Your task to perform on an android device: Search for "acer predator" on ebay.com, select the first entry, add it to the cart, then select checkout. Image 0: 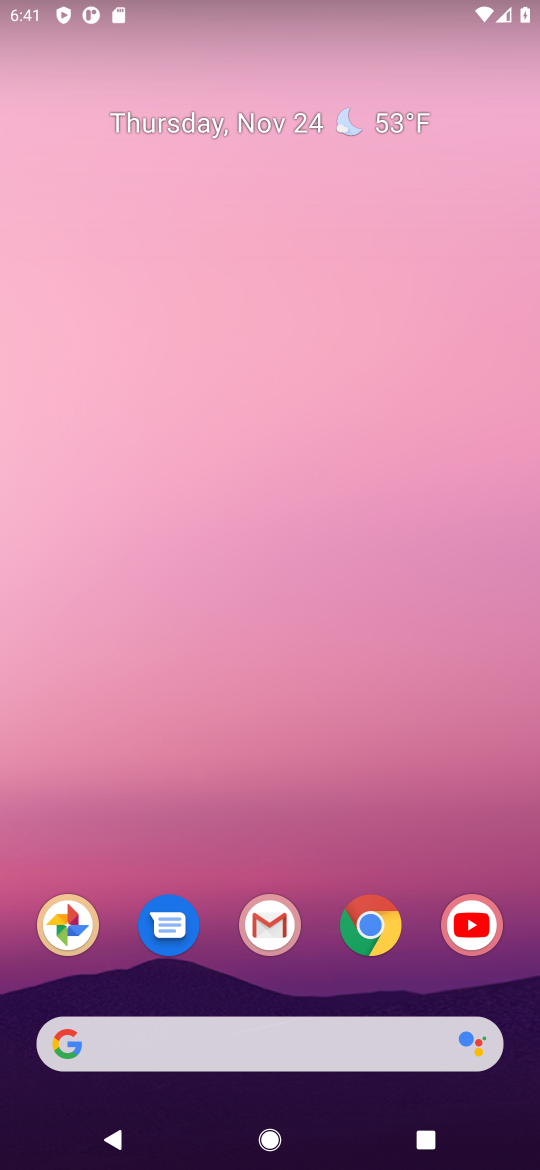
Step 0: drag from (207, 964) to (286, 471)
Your task to perform on an android device: Search for "acer predator" on ebay.com, select the first entry, add it to the cart, then select checkout. Image 1: 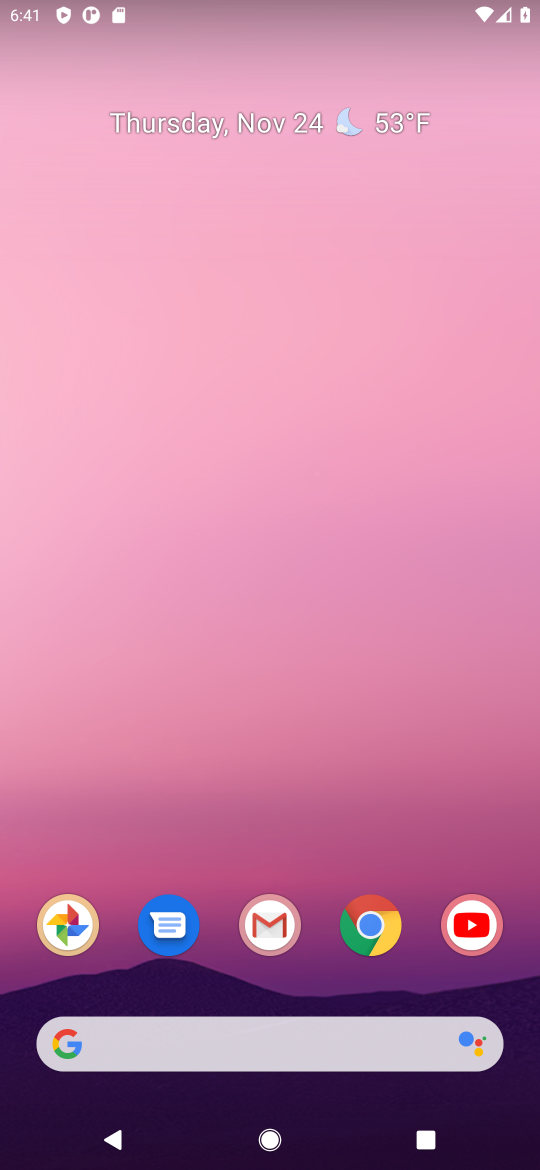
Step 1: drag from (248, 972) to (252, 488)
Your task to perform on an android device: Search for "acer predator" on ebay.com, select the first entry, add it to the cart, then select checkout. Image 2: 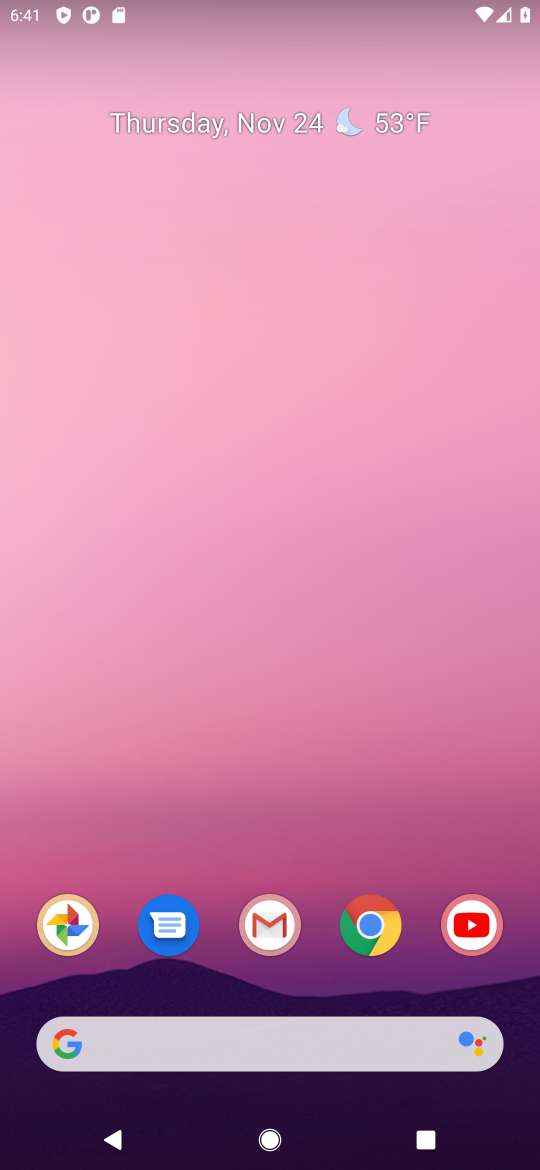
Step 2: drag from (275, 1006) to (274, 347)
Your task to perform on an android device: Search for "acer predator" on ebay.com, select the first entry, add it to the cart, then select checkout. Image 3: 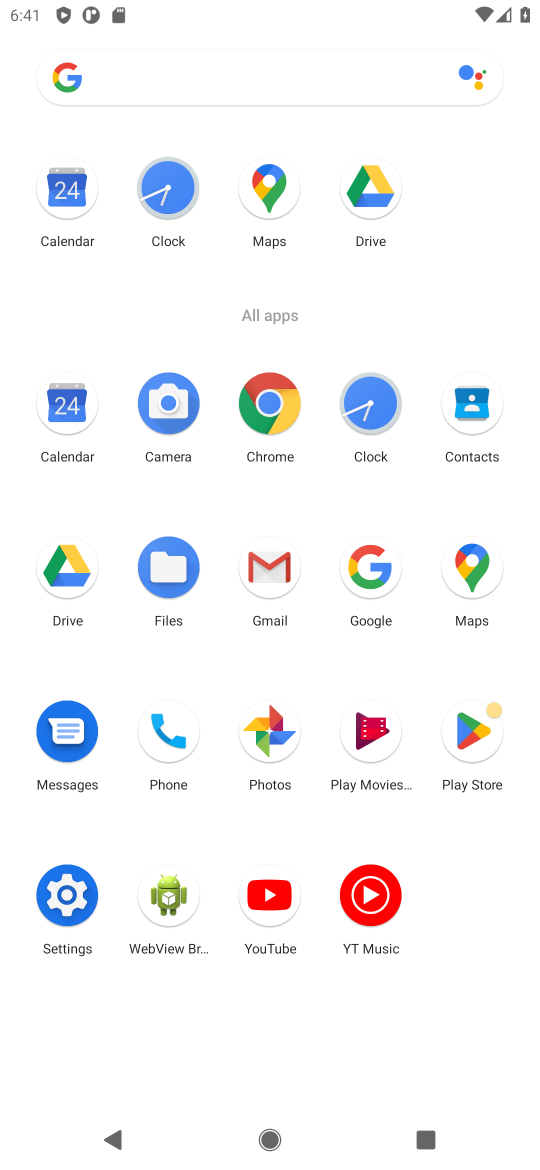
Step 3: click (356, 577)
Your task to perform on an android device: Search for "acer predator" on ebay.com, select the first entry, add it to the cart, then select checkout. Image 4: 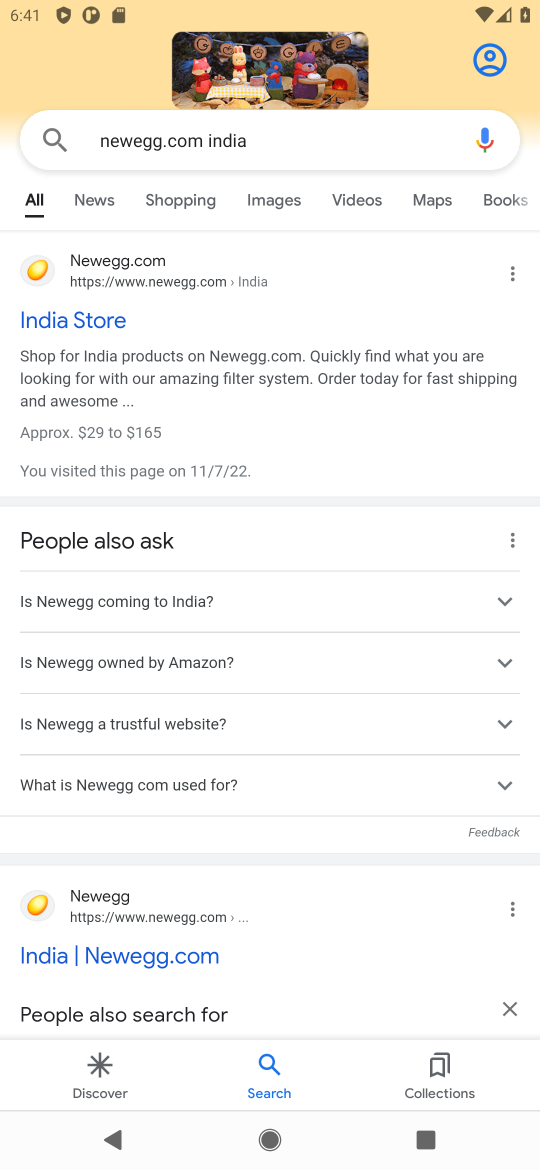
Step 4: click (120, 140)
Your task to perform on an android device: Search for "acer predator" on ebay.com, select the first entry, add it to the cart, then select checkout. Image 5: 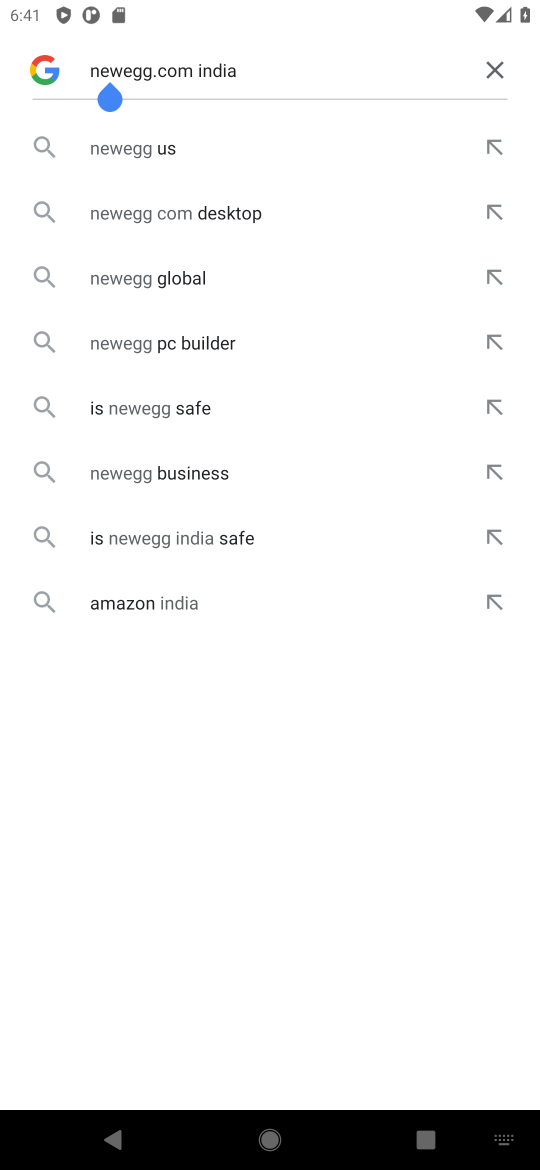
Step 5: click (505, 62)
Your task to perform on an android device: Search for "acer predator" on ebay.com, select the first entry, add it to the cart, then select checkout. Image 6: 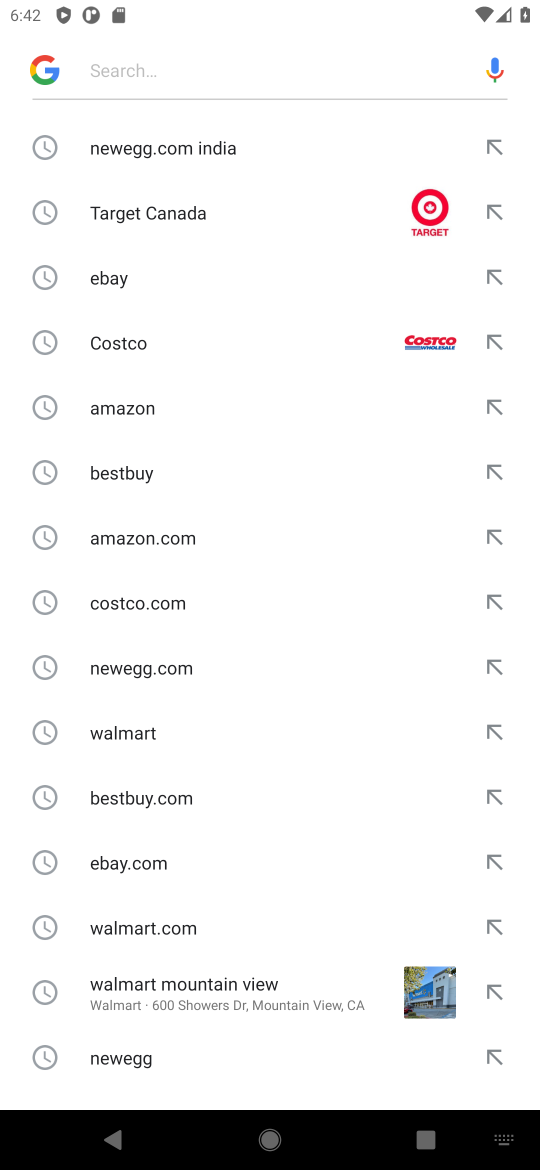
Step 6: click (149, 287)
Your task to perform on an android device: Search for "acer predator" on ebay.com, select the first entry, add it to the cart, then select checkout. Image 7: 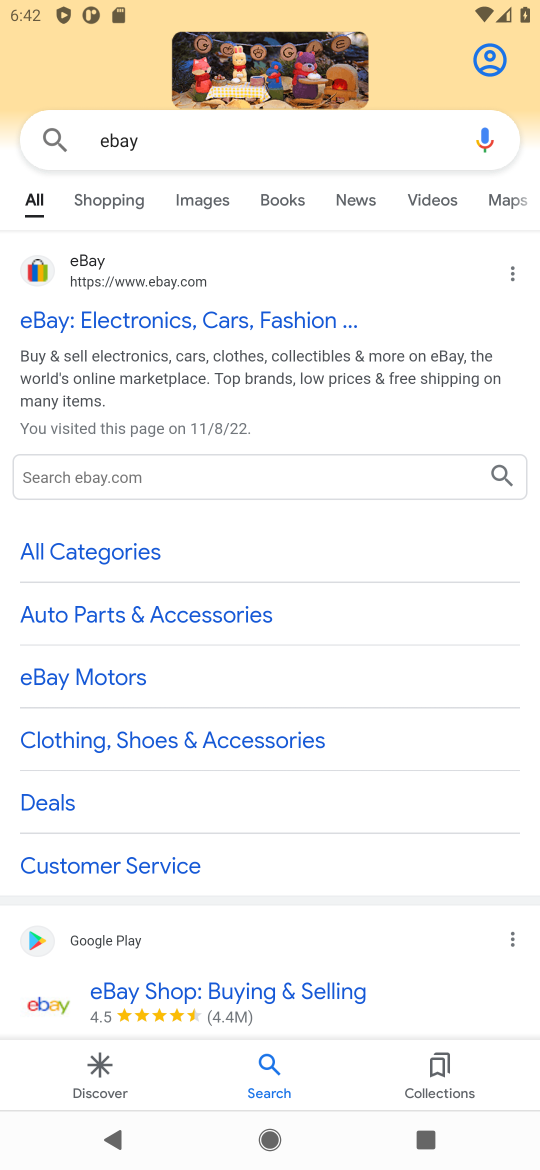
Step 7: click (141, 147)
Your task to perform on an android device: Search for "acer predator" on ebay.com, select the first entry, add it to the cart, then select checkout. Image 8: 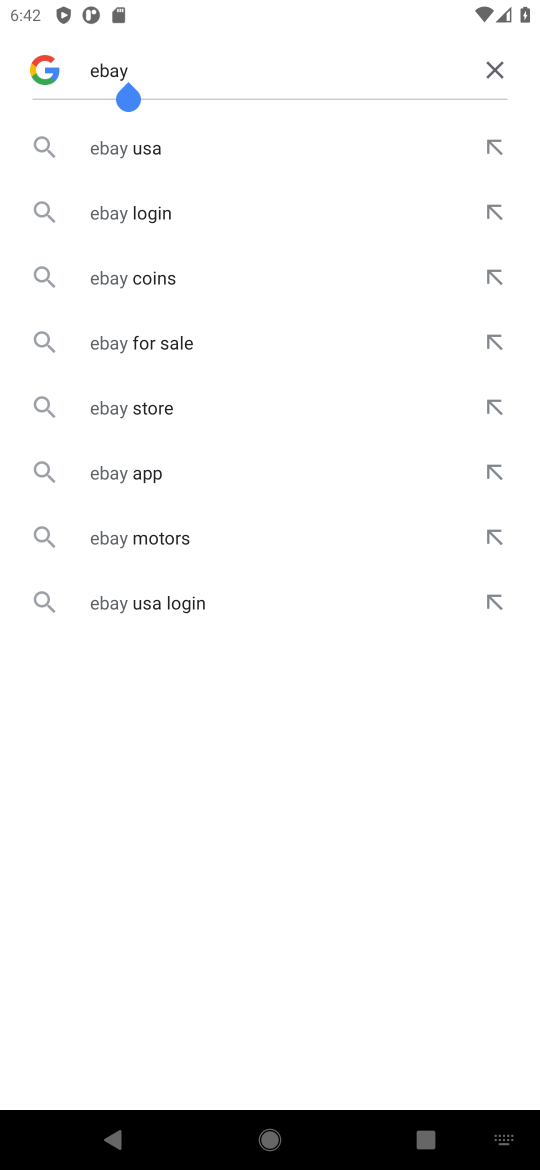
Step 8: click (500, 69)
Your task to perform on an android device: Search for "acer predator" on ebay.com, select the first entry, add it to the cart, then select checkout. Image 9: 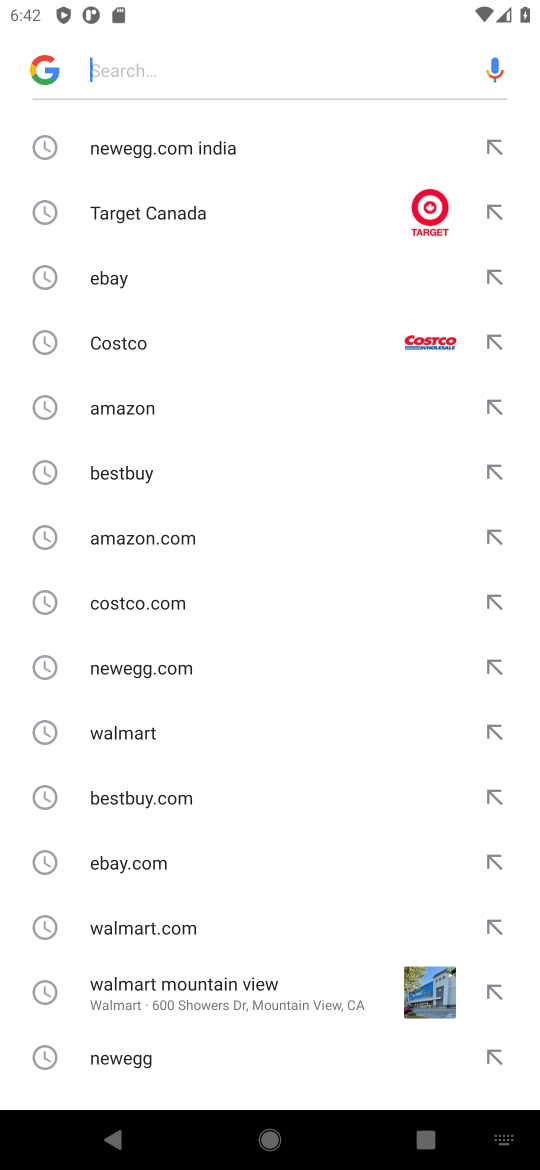
Step 9: click (109, 280)
Your task to perform on an android device: Search for "acer predator" on ebay.com, select the first entry, add it to the cart, then select checkout. Image 10: 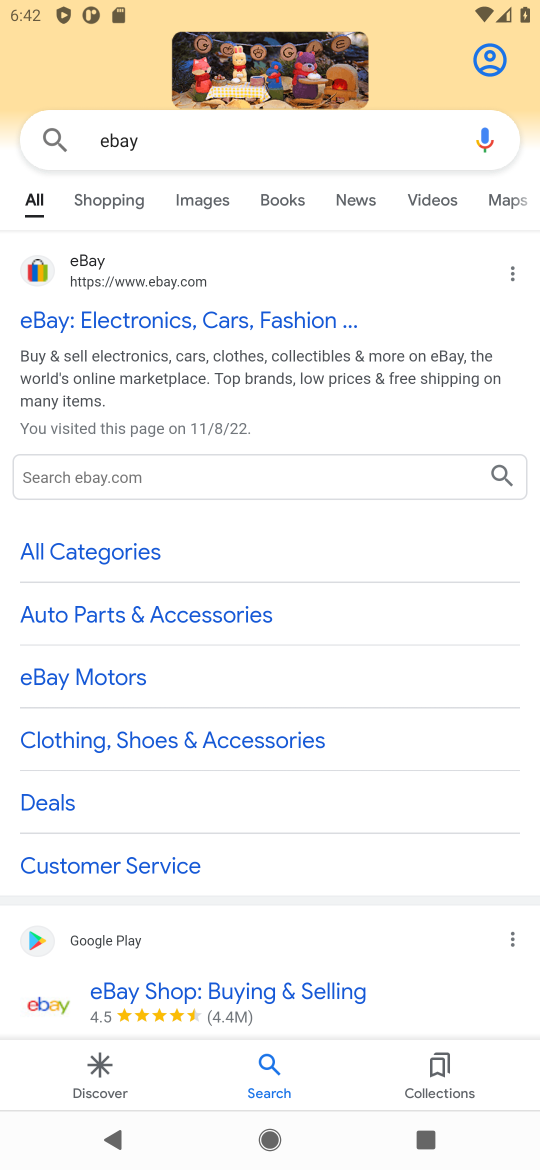
Step 10: click (103, 311)
Your task to perform on an android device: Search for "acer predator" on ebay.com, select the first entry, add it to the cart, then select checkout. Image 11: 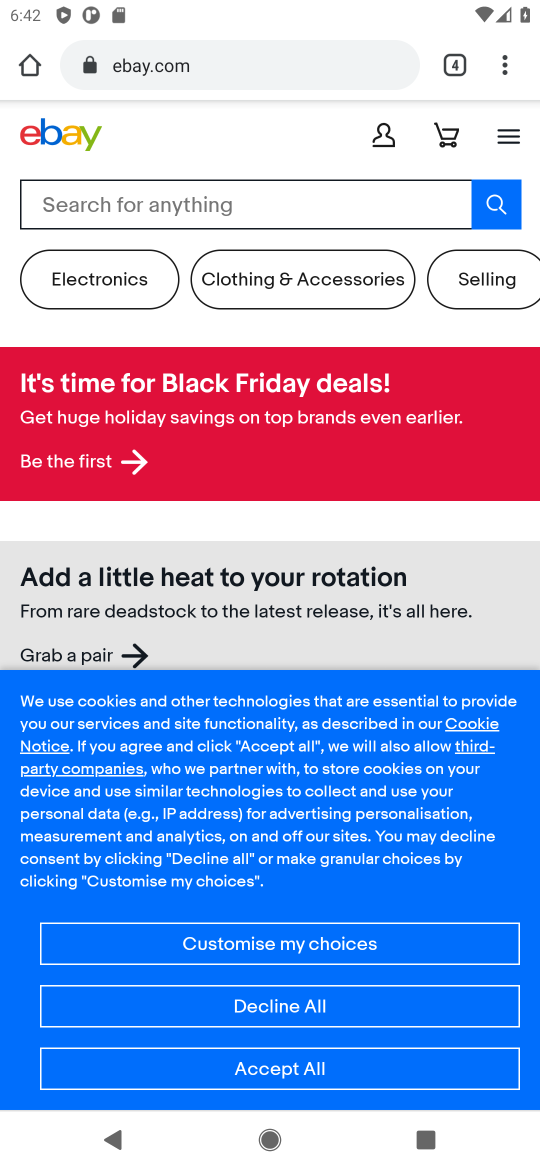
Step 11: click (375, 208)
Your task to perform on an android device: Search for "acer predator" on ebay.com, select the first entry, add it to the cart, then select checkout. Image 12: 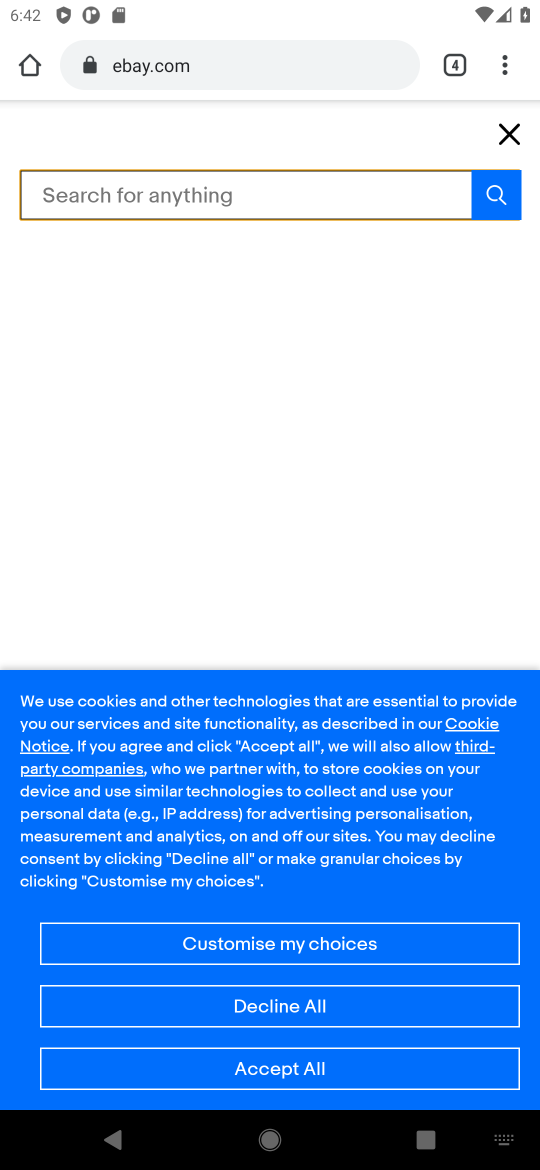
Step 12: type "cer predator"
Your task to perform on an android device: Search for "acer predator" on ebay.com, select the first entry, add it to the cart, then select checkout. Image 13: 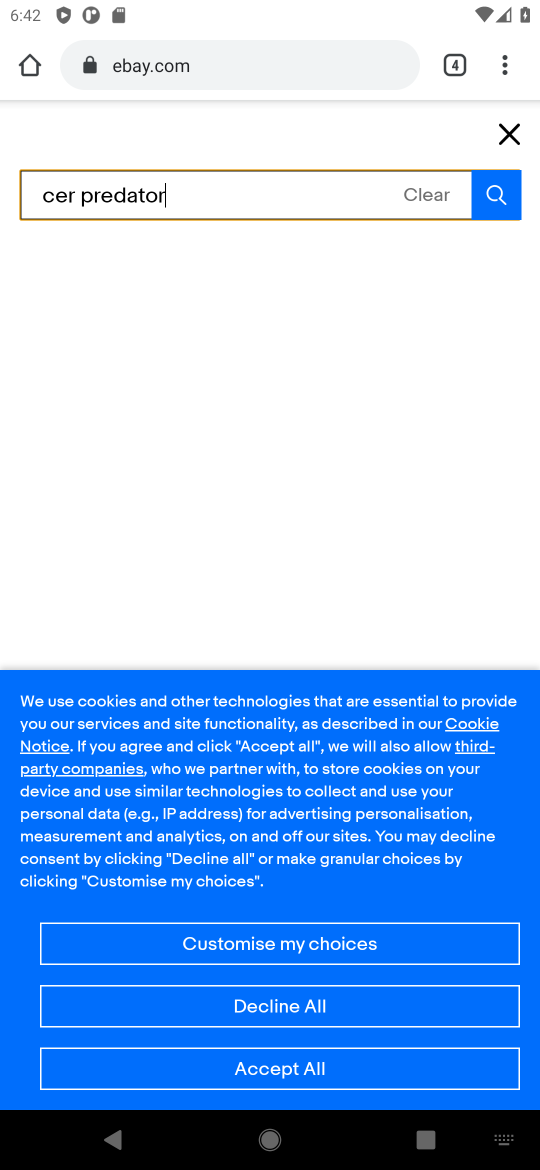
Step 13: click (491, 183)
Your task to perform on an android device: Search for "acer predator" on ebay.com, select the first entry, add it to the cart, then select checkout. Image 14: 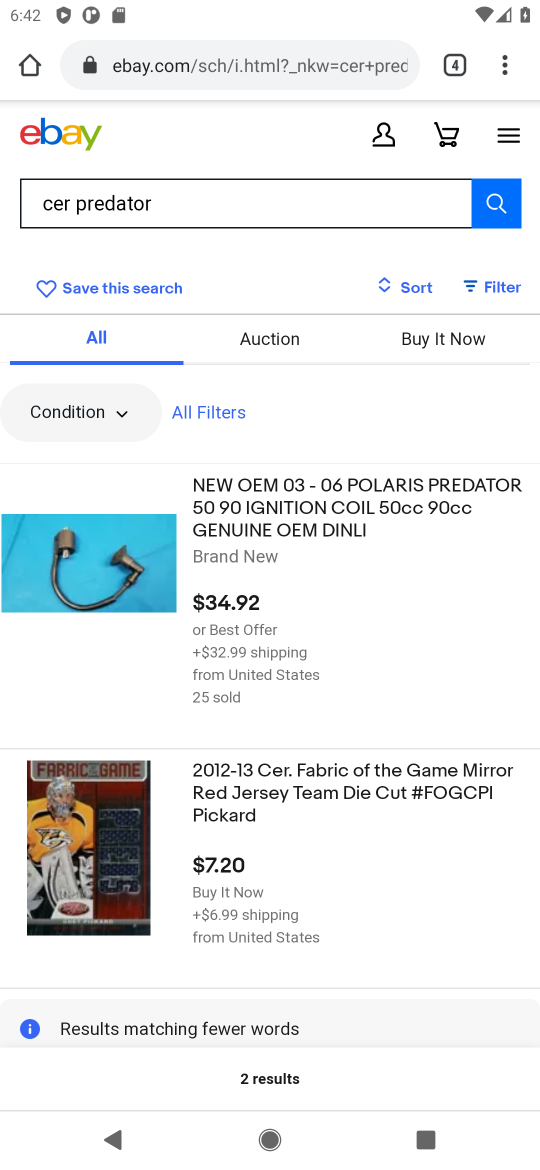
Step 14: click (386, 504)
Your task to perform on an android device: Search for "acer predator" on ebay.com, select the first entry, add it to the cart, then select checkout. Image 15: 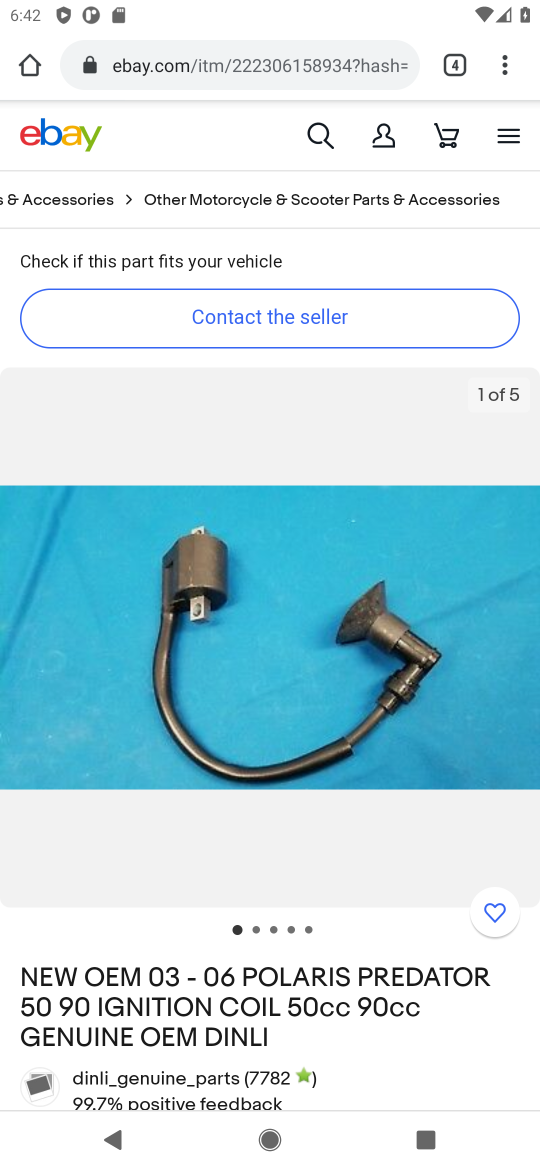
Step 15: drag from (340, 902) to (393, 391)
Your task to perform on an android device: Search for "acer predator" on ebay.com, select the first entry, add it to the cart, then select checkout. Image 16: 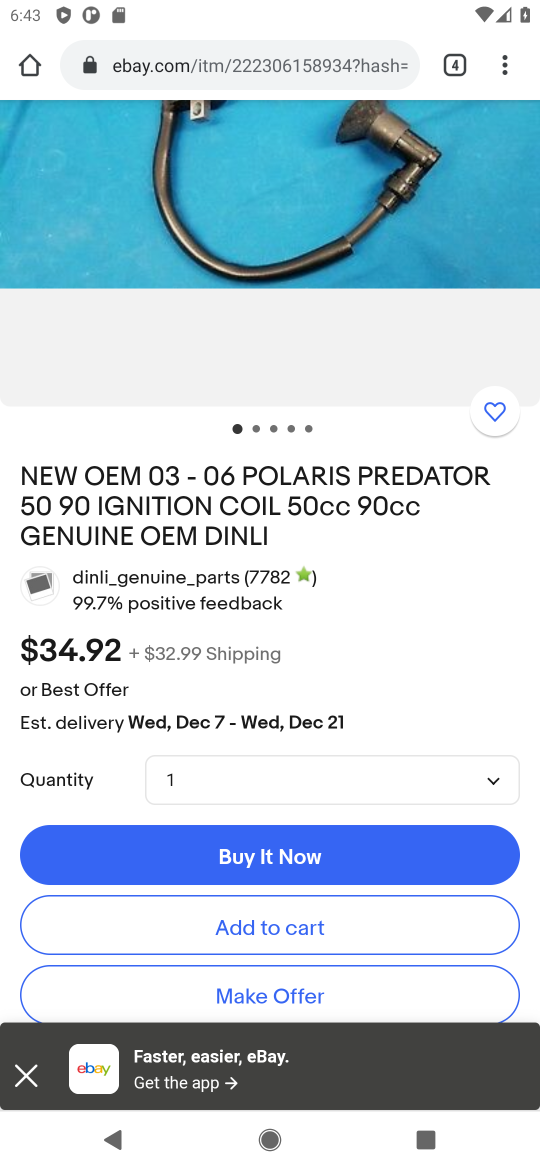
Step 16: click (315, 923)
Your task to perform on an android device: Search for "acer predator" on ebay.com, select the first entry, add it to the cart, then select checkout. Image 17: 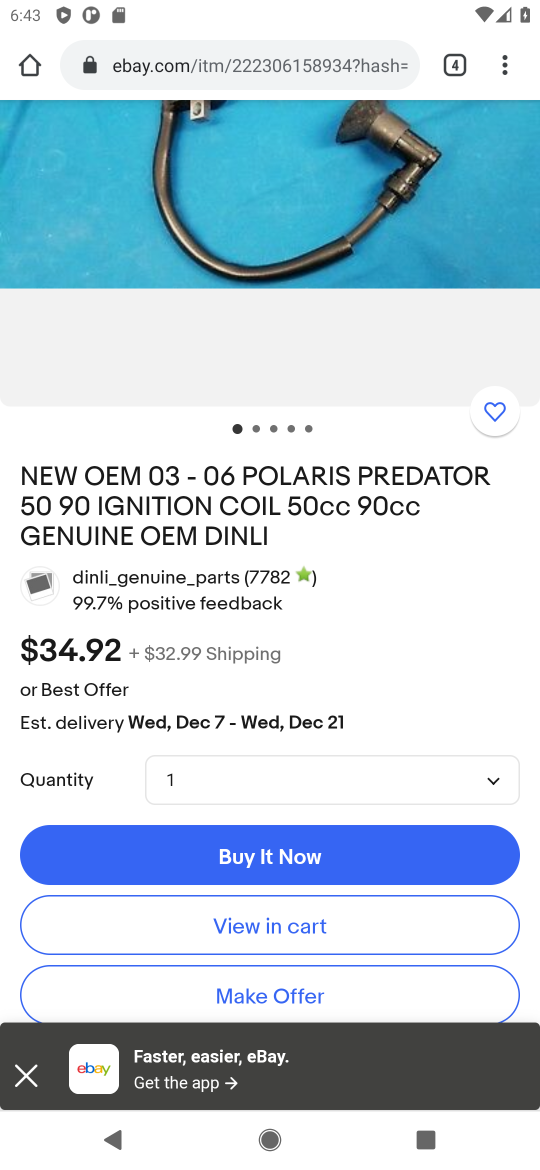
Step 17: drag from (477, 231) to (493, 736)
Your task to perform on an android device: Search for "acer predator" on ebay.com, select the first entry, add it to the cart, then select checkout. Image 18: 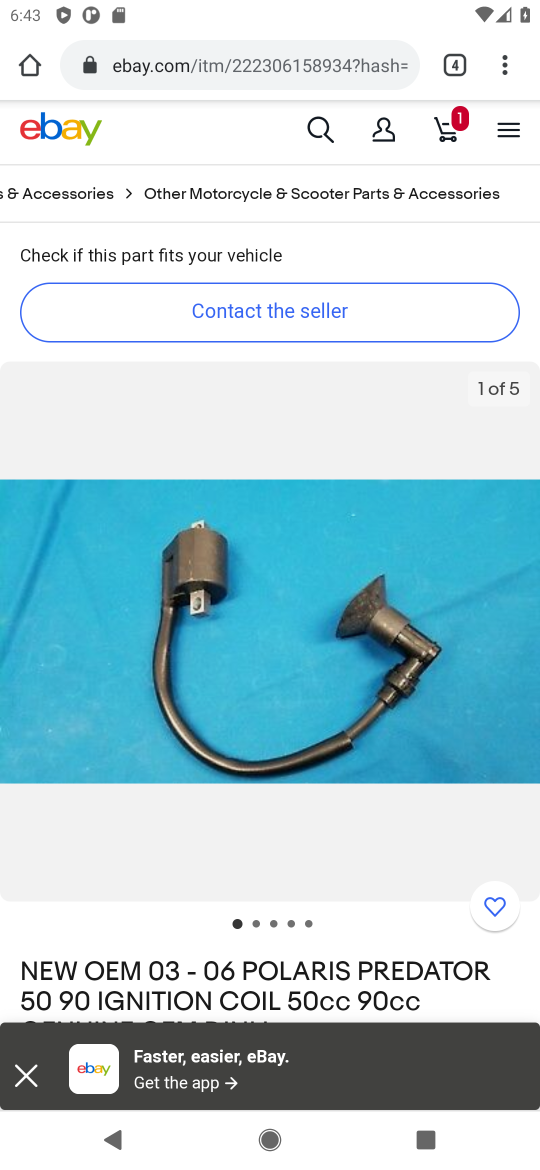
Step 18: click (457, 122)
Your task to perform on an android device: Search for "acer predator" on ebay.com, select the first entry, add it to the cart, then select checkout. Image 19: 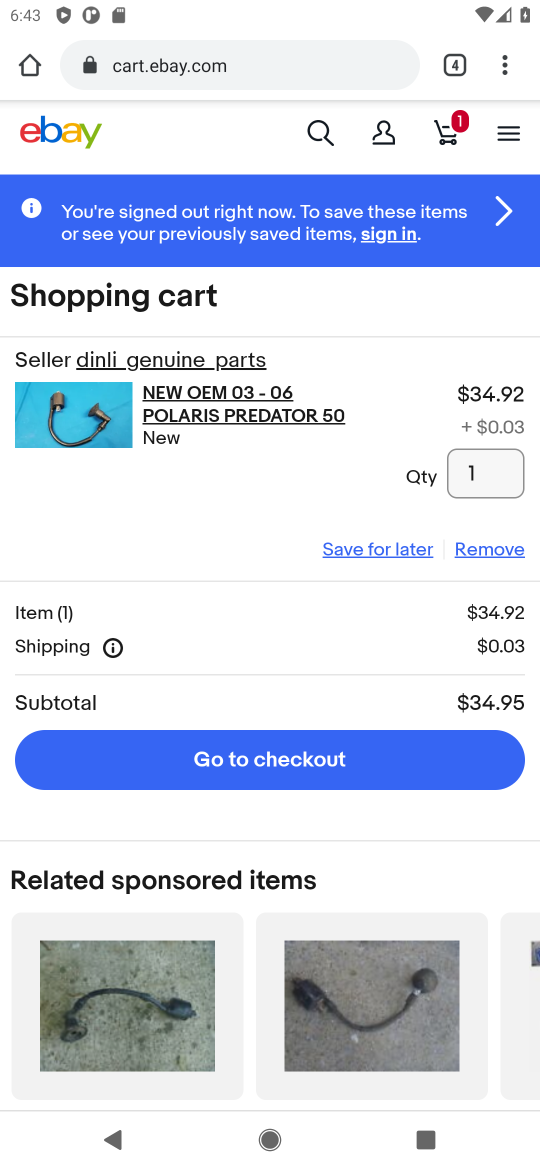
Step 19: click (306, 762)
Your task to perform on an android device: Search for "acer predator" on ebay.com, select the first entry, add it to the cart, then select checkout. Image 20: 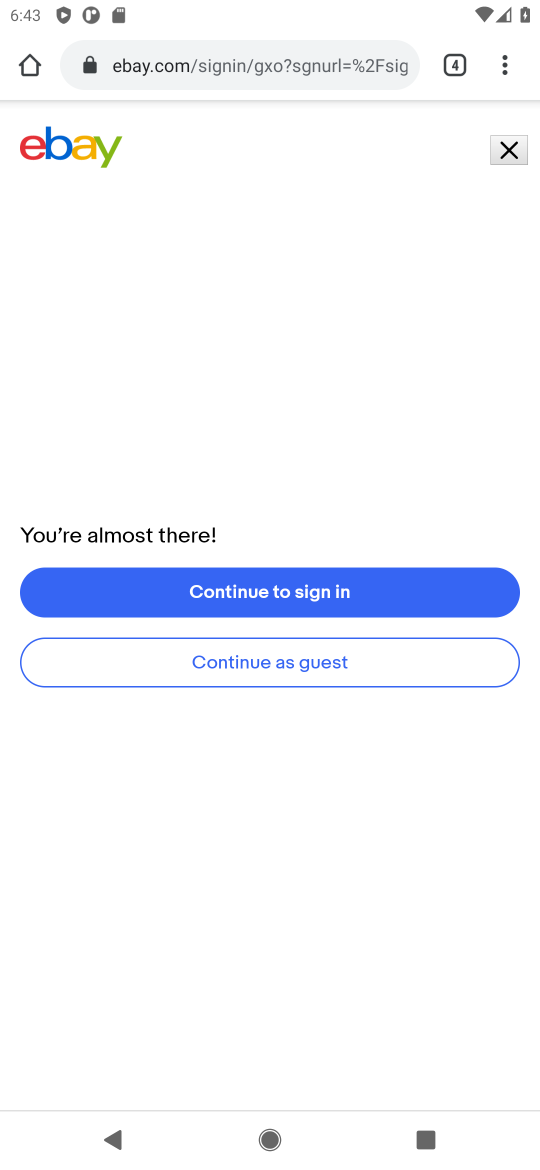
Step 20: task complete